Your task to perform on an android device: Open CNN.com Image 0: 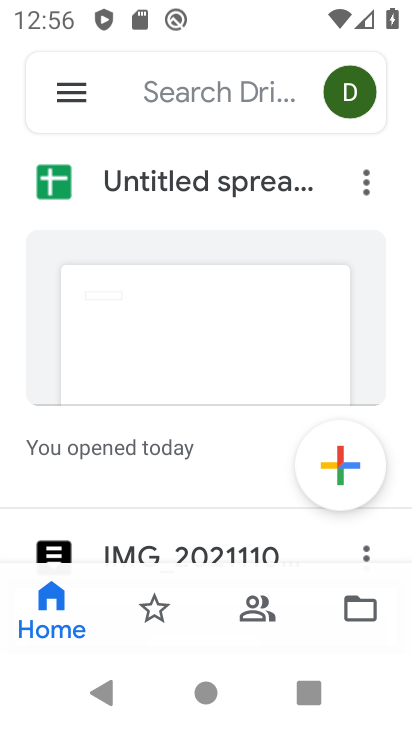
Step 0: press home button
Your task to perform on an android device: Open CNN.com Image 1: 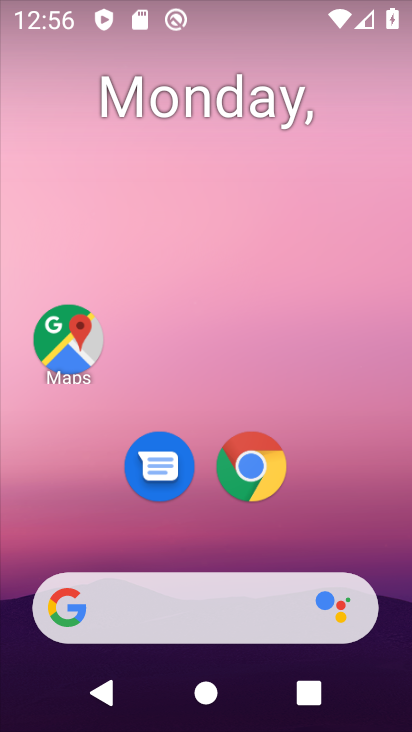
Step 1: click (260, 463)
Your task to perform on an android device: Open CNN.com Image 2: 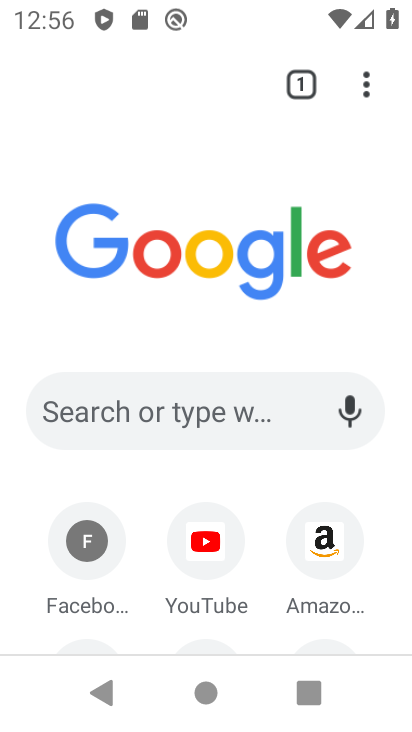
Step 2: click (197, 405)
Your task to perform on an android device: Open CNN.com Image 3: 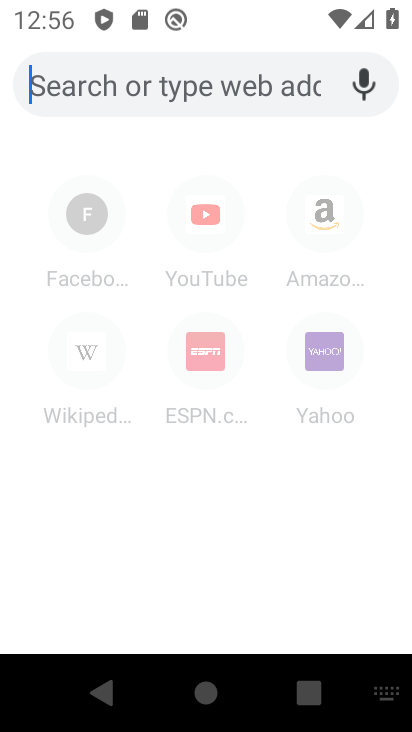
Step 3: type "CNN.com"
Your task to perform on an android device: Open CNN.com Image 4: 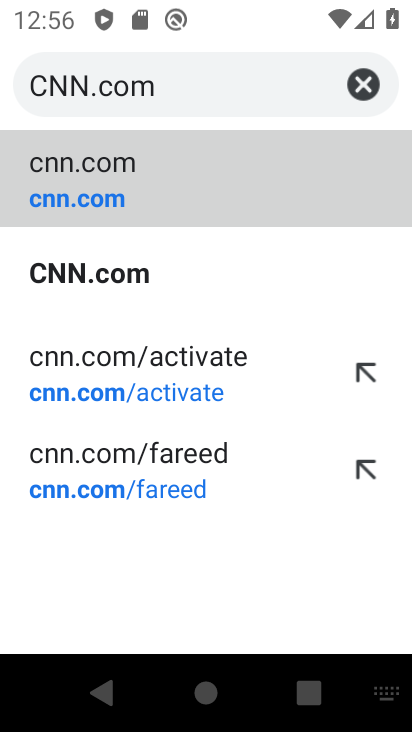
Step 4: click (126, 206)
Your task to perform on an android device: Open CNN.com Image 5: 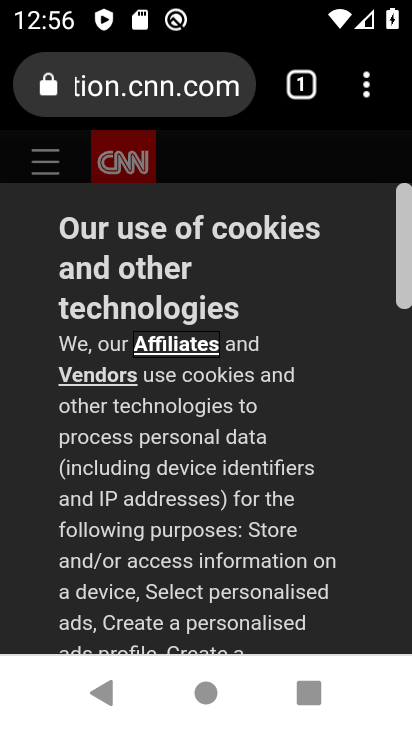
Step 5: task complete